Your task to perform on an android device: Do I have any events this weekend? Image 0: 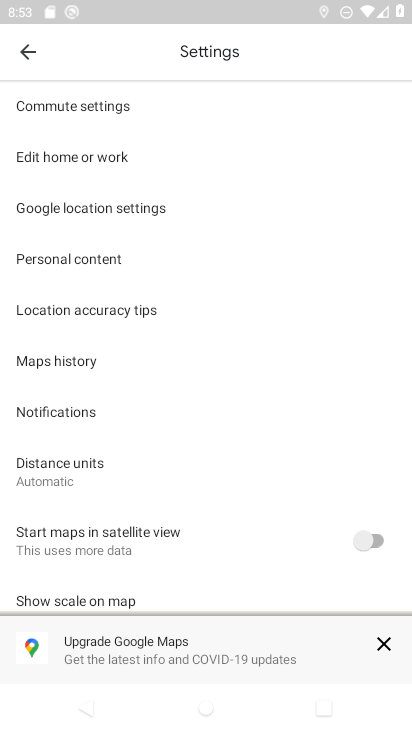
Step 0: press home button
Your task to perform on an android device: Do I have any events this weekend? Image 1: 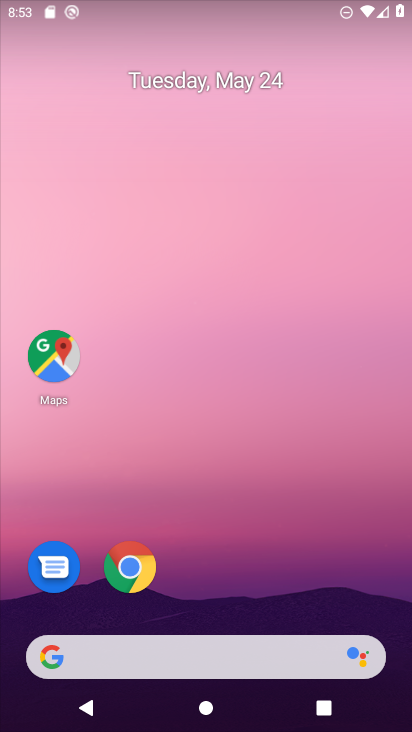
Step 1: drag from (150, 659) to (313, 187)
Your task to perform on an android device: Do I have any events this weekend? Image 2: 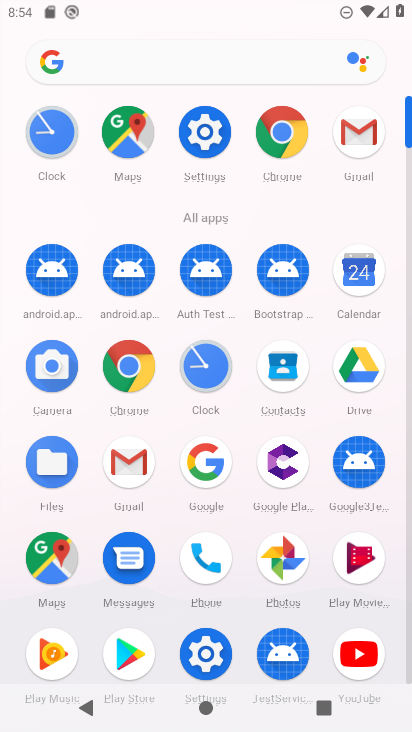
Step 2: click (363, 282)
Your task to perform on an android device: Do I have any events this weekend? Image 3: 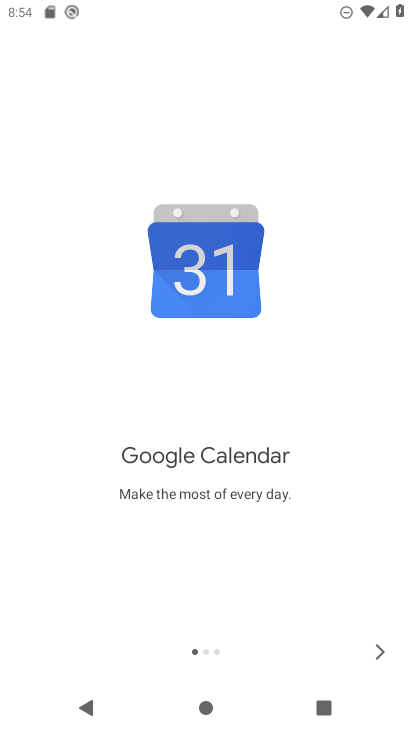
Step 3: click (382, 644)
Your task to perform on an android device: Do I have any events this weekend? Image 4: 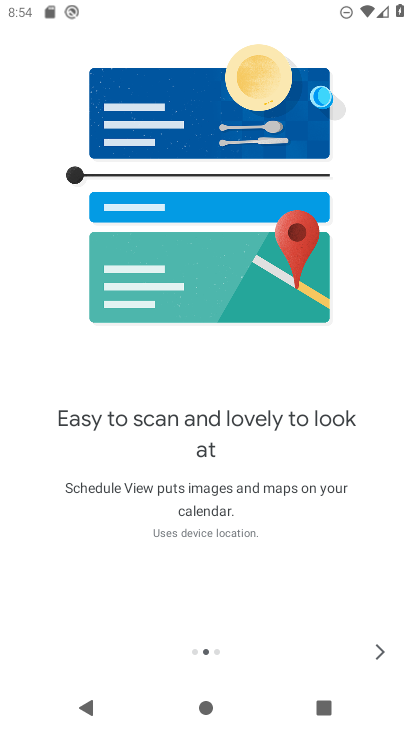
Step 4: click (382, 644)
Your task to perform on an android device: Do I have any events this weekend? Image 5: 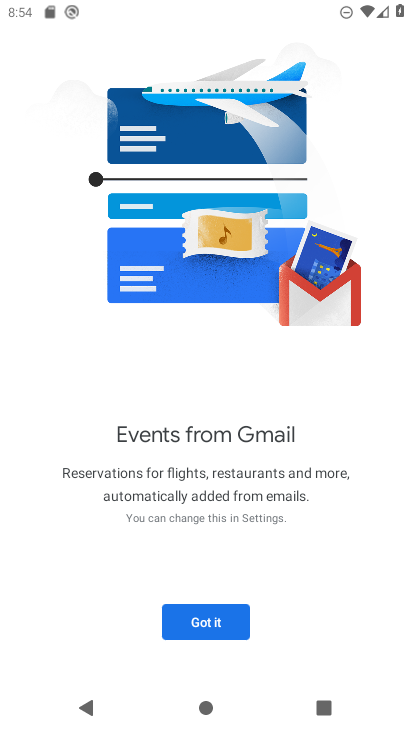
Step 5: click (203, 616)
Your task to perform on an android device: Do I have any events this weekend? Image 6: 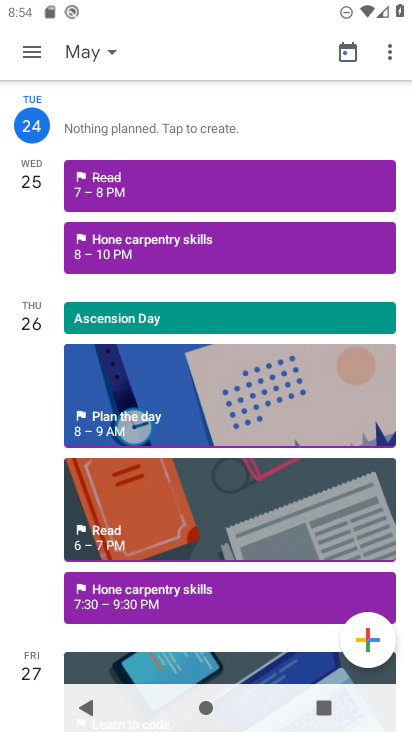
Step 6: click (75, 56)
Your task to perform on an android device: Do I have any events this weekend? Image 7: 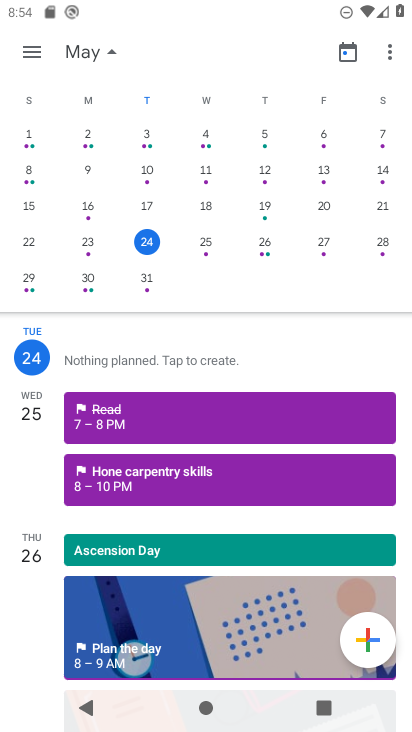
Step 7: click (384, 245)
Your task to perform on an android device: Do I have any events this weekend? Image 8: 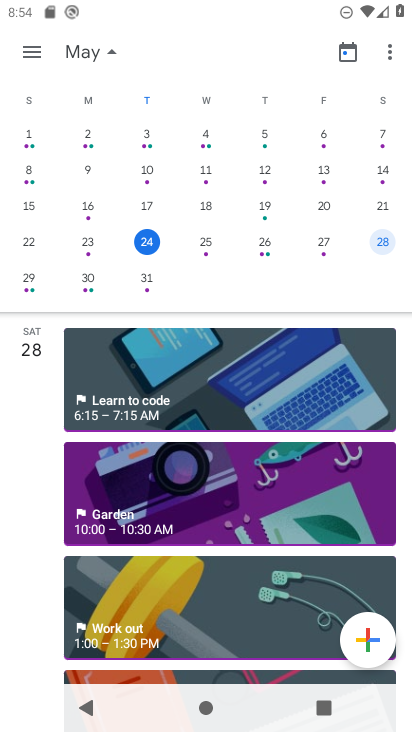
Step 8: click (35, 48)
Your task to perform on an android device: Do I have any events this weekend? Image 9: 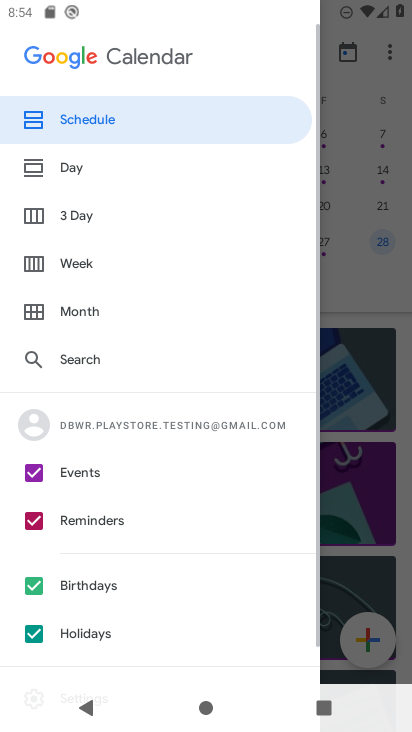
Step 9: click (113, 122)
Your task to perform on an android device: Do I have any events this weekend? Image 10: 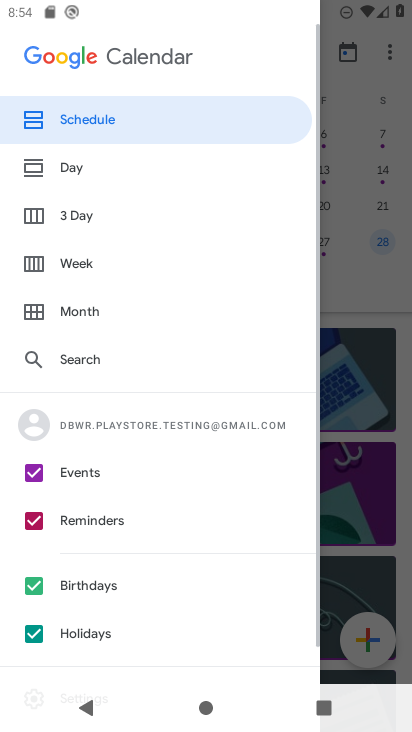
Step 10: click (80, 112)
Your task to perform on an android device: Do I have any events this weekend? Image 11: 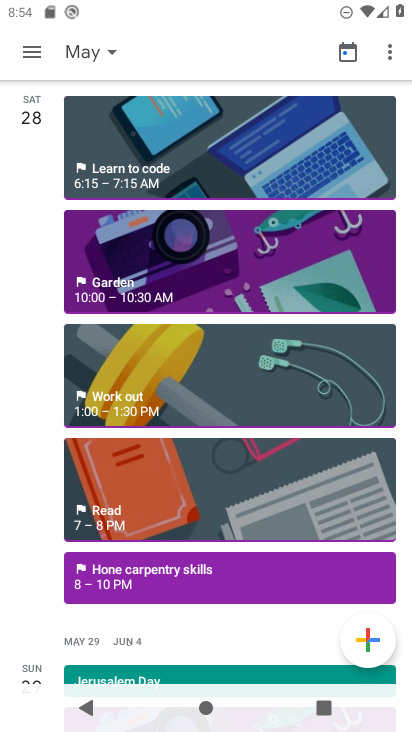
Step 11: click (169, 244)
Your task to perform on an android device: Do I have any events this weekend? Image 12: 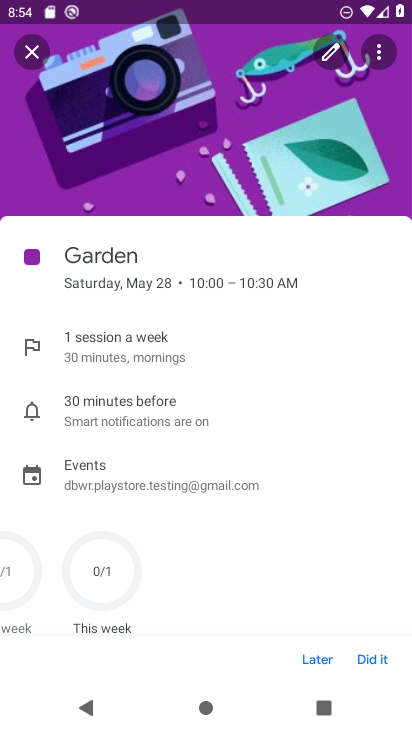
Step 12: task complete